Your task to perform on an android device: turn off smart reply in the gmail app Image 0: 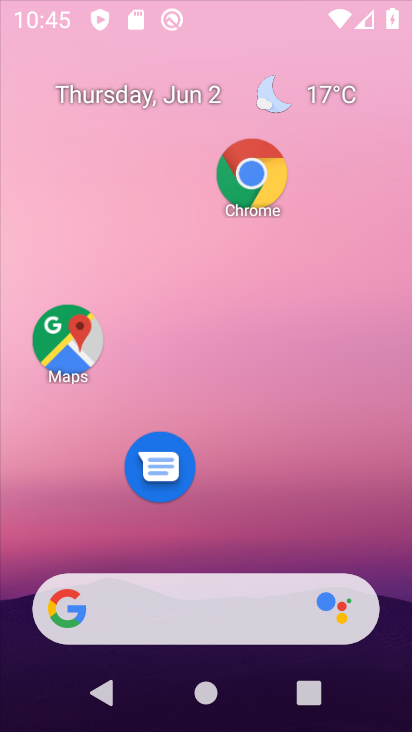
Step 0: press home button
Your task to perform on an android device: turn off smart reply in the gmail app Image 1: 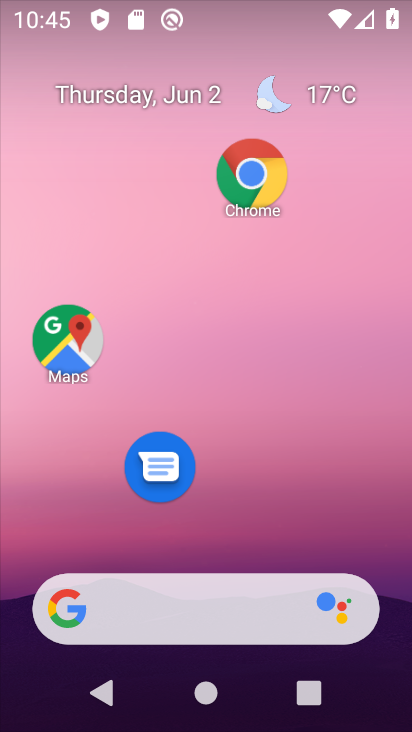
Step 1: click (258, 183)
Your task to perform on an android device: turn off smart reply in the gmail app Image 2: 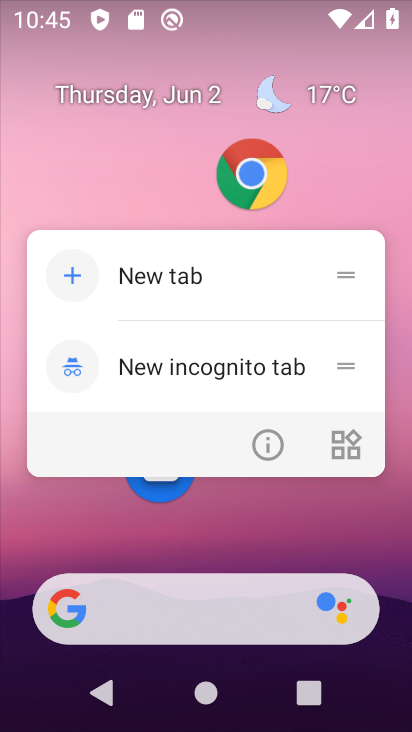
Step 2: click (87, 206)
Your task to perform on an android device: turn off smart reply in the gmail app Image 3: 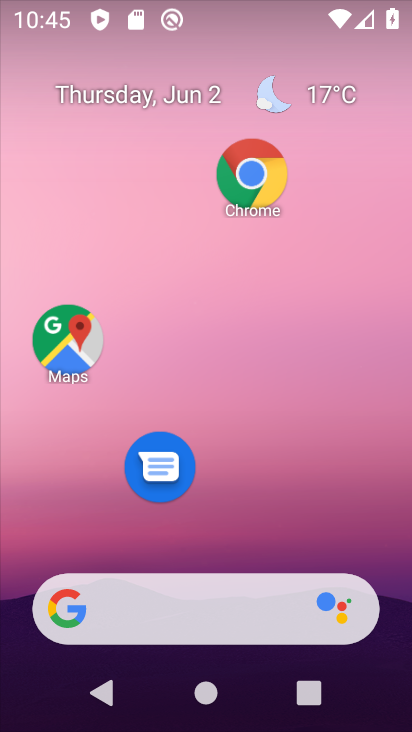
Step 3: drag from (304, 310) to (319, 3)
Your task to perform on an android device: turn off smart reply in the gmail app Image 4: 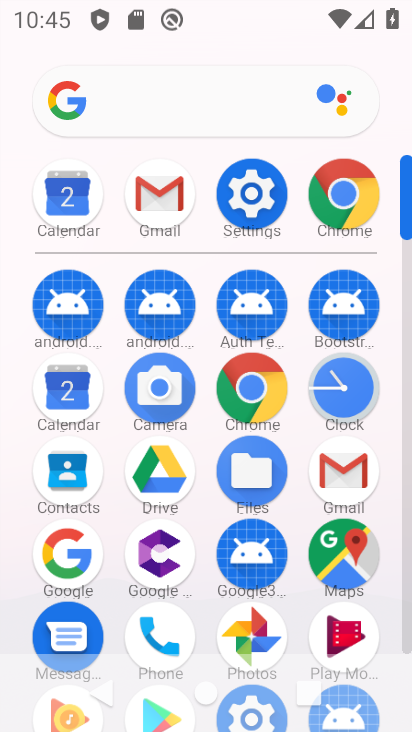
Step 4: click (164, 200)
Your task to perform on an android device: turn off smart reply in the gmail app Image 5: 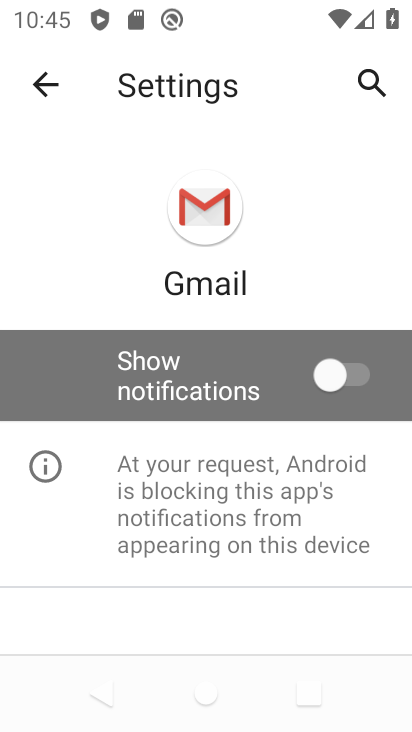
Step 5: click (50, 78)
Your task to perform on an android device: turn off smart reply in the gmail app Image 6: 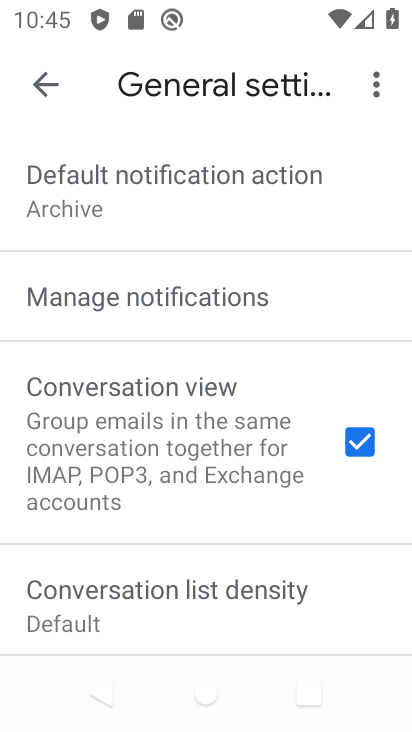
Step 6: click (47, 88)
Your task to perform on an android device: turn off smart reply in the gmail app Image 7: 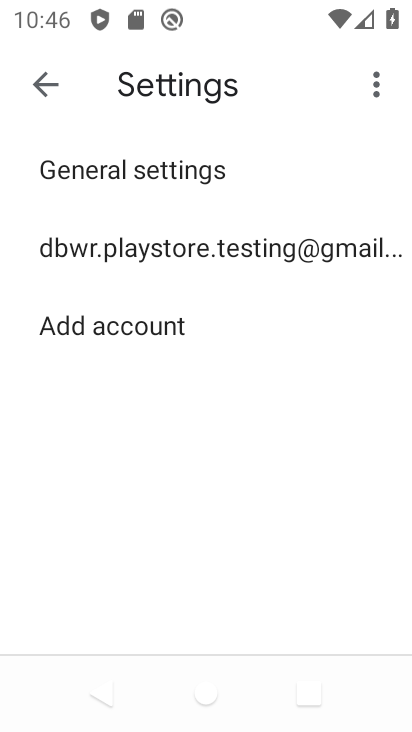
Step 7: click (155, 253)
Your task to perform on an android device: turn off smart reply in the gmail app Image 8: 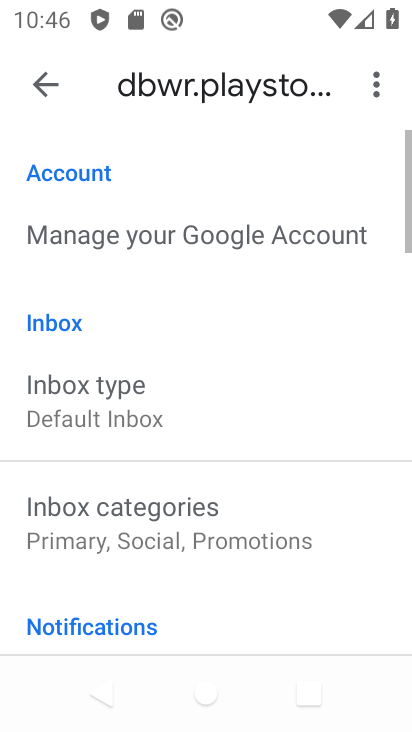
Step 8: drag from (310, 551) to (280, 133)
Your task to perform on an android device: turn off smart reply in the gmail app Image 9: 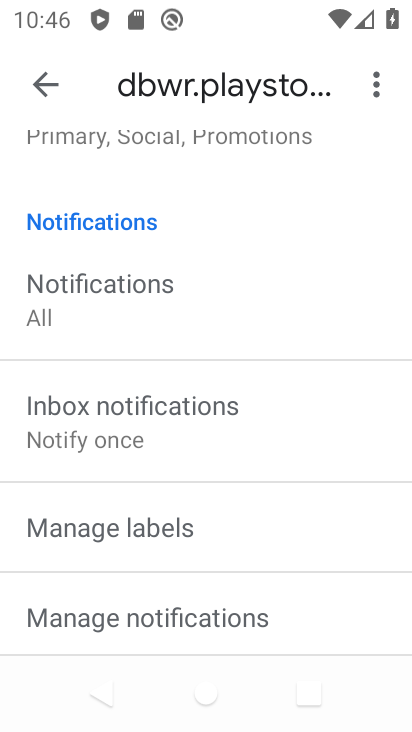
Step 9: drag from (307, 513) to (285, 47)
Your task to perform on an android device: turn off smart reply in the gmail app Image 10: 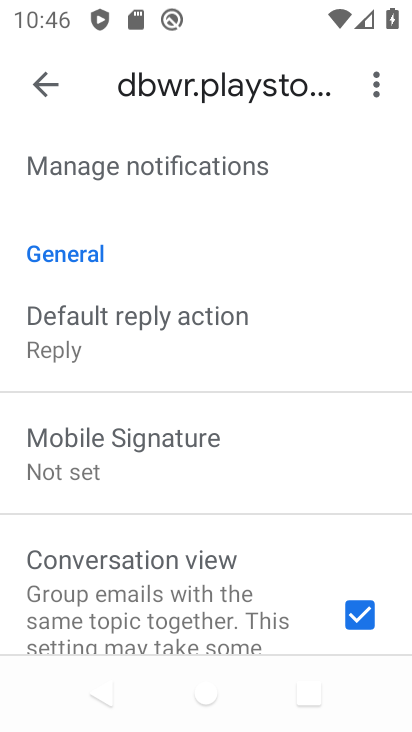
Step 10: drag from (288, 493) to (294, 196)
Your task to perform on an android device: turn off smart reply in the gmail app Image 11: 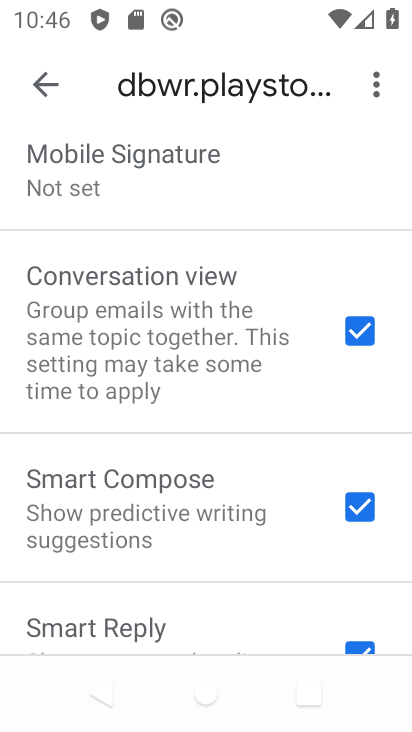
Step 11: drag from (272, 464) to (264, 190)
Your task to perform on an android device: turn off smart reply in the gmail app Image 12: 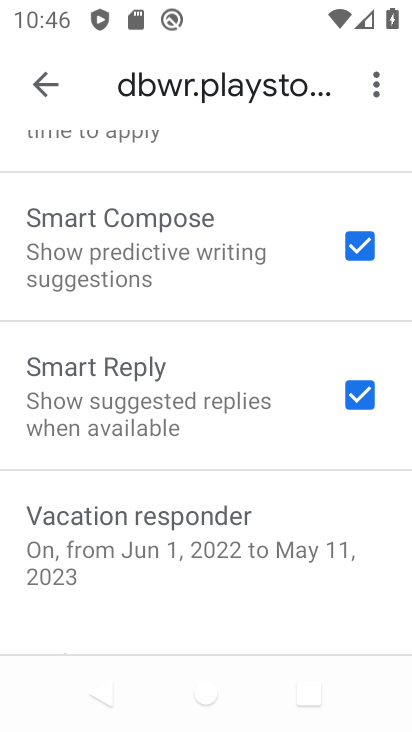
Step 12: click (362, 395)
Your task to perform on an android device: turn off smart reply in the gmail app Image 13: 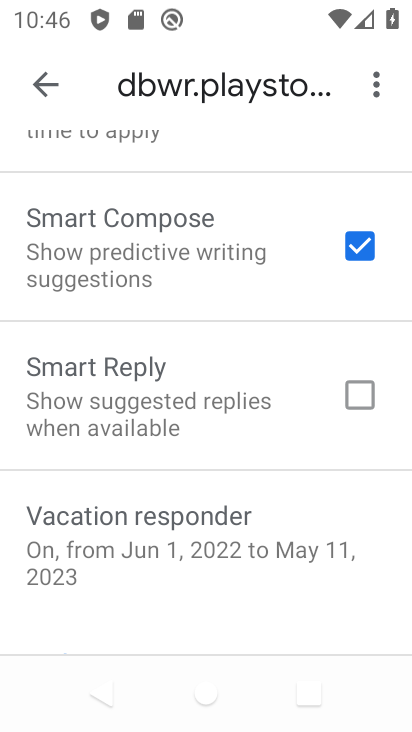
Step 13: task complete